Your task to perform on an android device: see creations saved in the google photos Image 0: 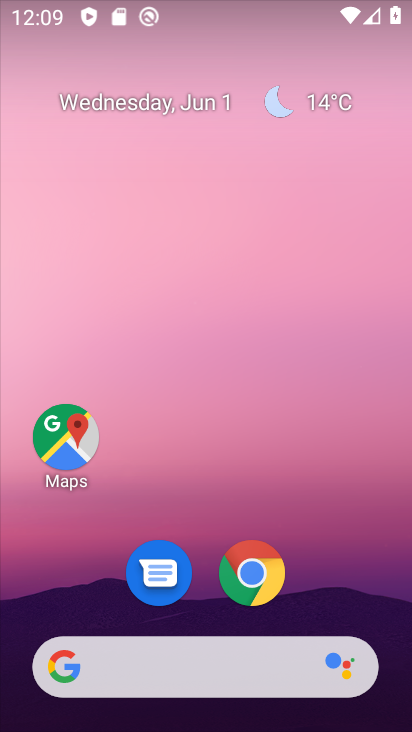
Step 0: drag from (110, 594) to (251, 113)
Your task to perform on an android device: see creations saved in the google photos Image 1: 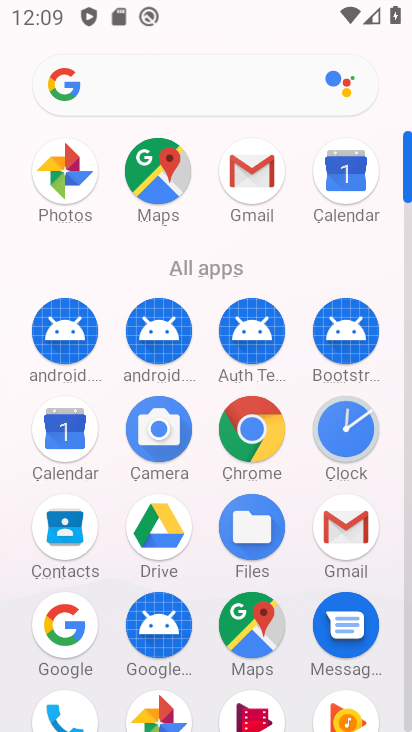
Step 1: drag from (173, 516) to (255, 219)
Your task to perform on an android device: see creations saved in the google photos Image 2: 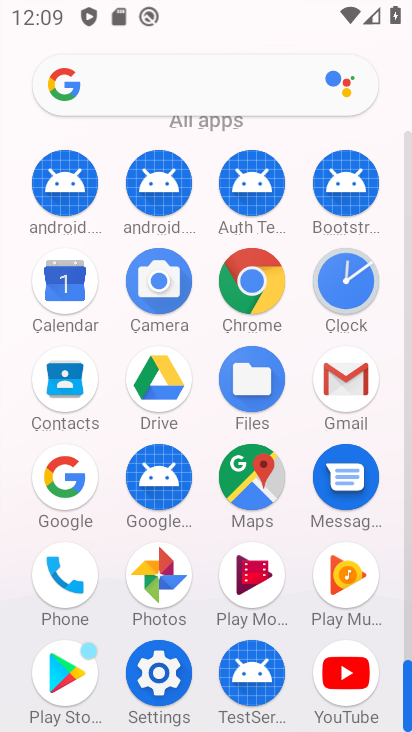
Step 2: click (161, 577)
Your task to perform on an android device: see creations saved in the google photos Image 3: 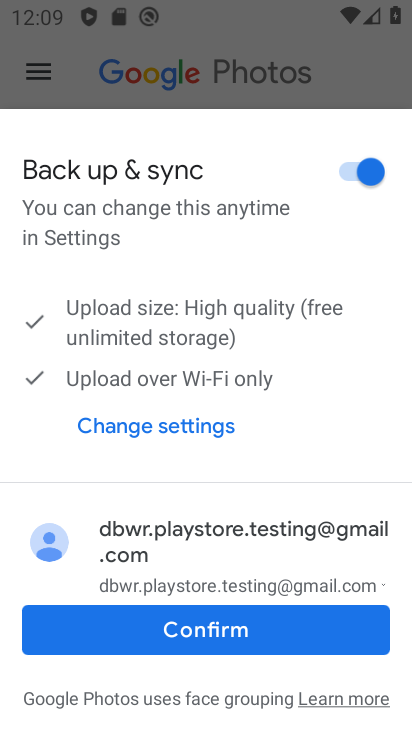
Step 3: click (232, 640)
Your task to perform on an android device: see creations saved in the google photos Image 4: 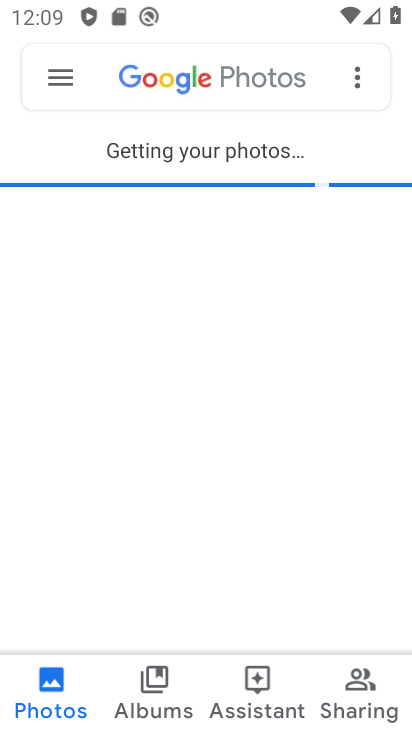
Step 4: click (207, 76)
Your task to perform on an android device: see creations saved in the google photos Image 5: 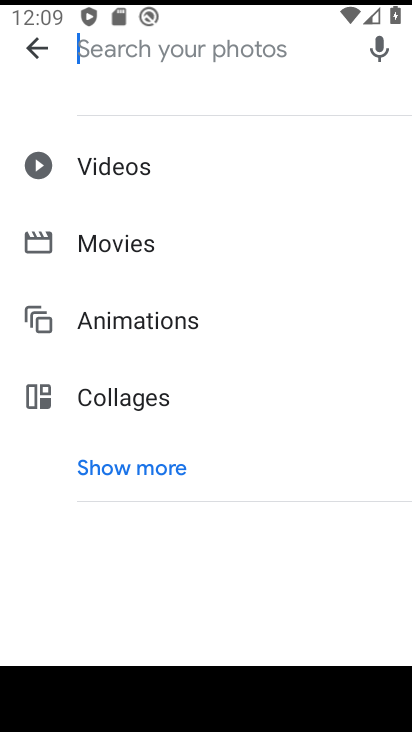
Step 5: click (160, 484)
Your task to perform on an android device: see creations saved in the google photos Image 6: 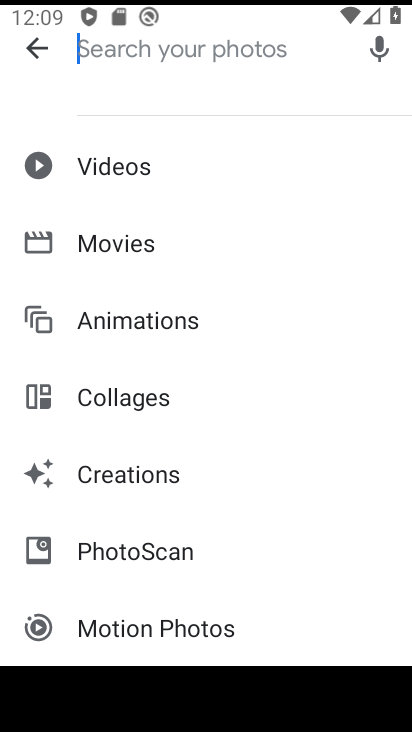
Step 6: click (144, 477)
Your task to perform on an android device: see creations saved in the google photos Image 7: 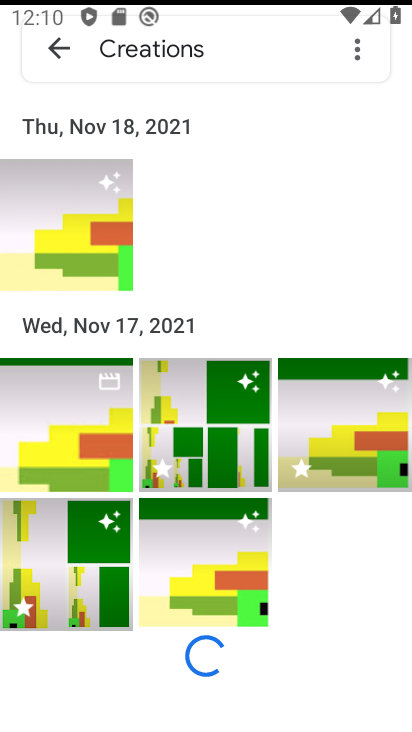
Step 7: task complete